Your task to perform on an android device: Go to network settings Image 0: 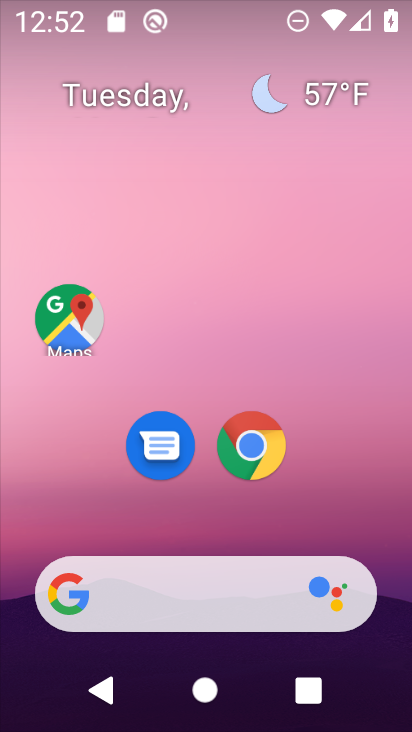
Step 0: drag from (390, 517) to (369, 105)
Your task to perform on an android device: Go to network settings Image 1: 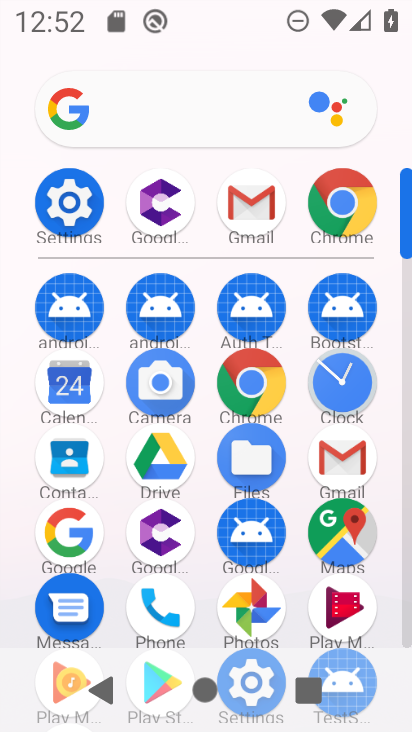
Step 1: drag from (376, 623) to (389, 324)
Your task to perform on an android device: Go to network settings Image 2: 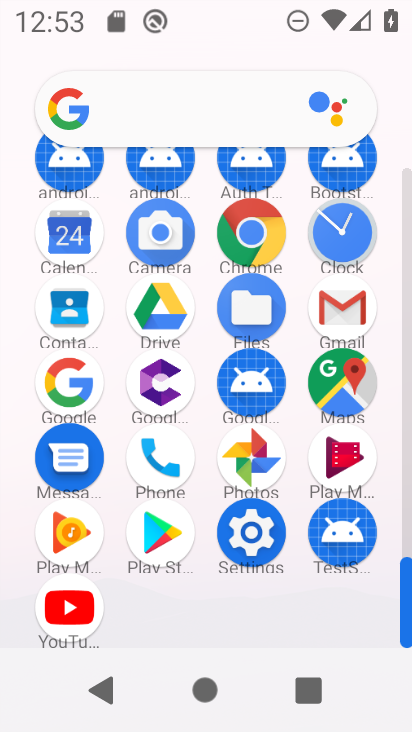
Step 2: drag from (394, 241) to (383, 391)
Your task to perform on an android device: Go to network settings Image 3: 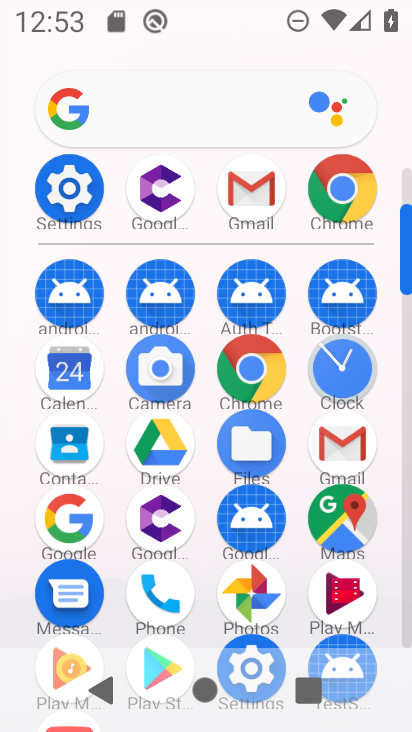
Step 3: click (81, 205)
Your task to perform on an android device: Go to network settings Image 4: 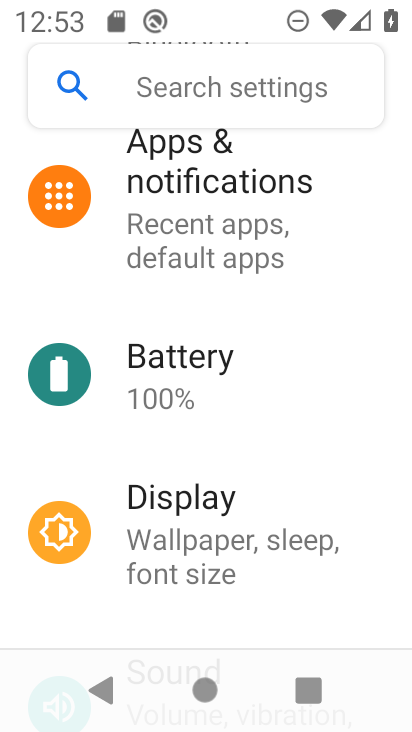
Step 4: drag from (346, 242) to (358, 458)
Your task to perform on an android device: Go to network settings Image 5: 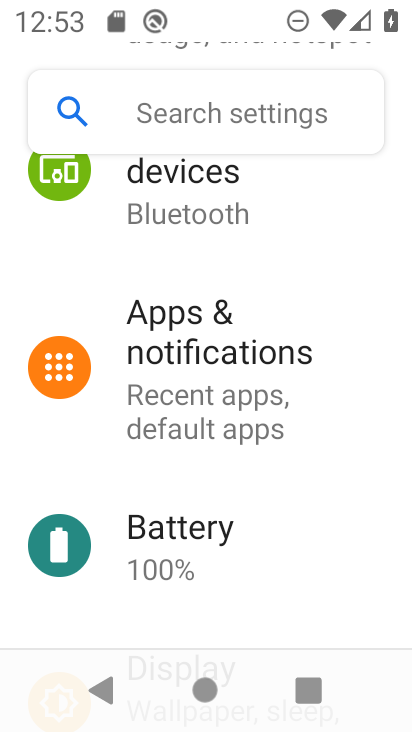
Step 5: drag from (350, 191) to (355, 455)
Your task to perform on an android device: Go to network settings Image 6: 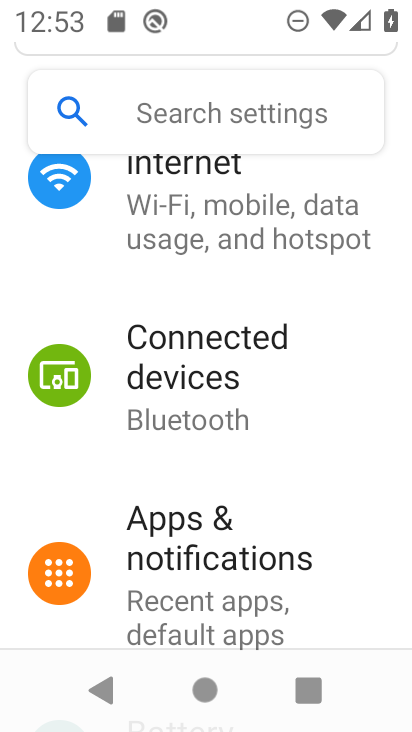
Step 6: drag from (357, 292) to (355, 526)
Your task to perform on an android device: Go to network settings Image 7: 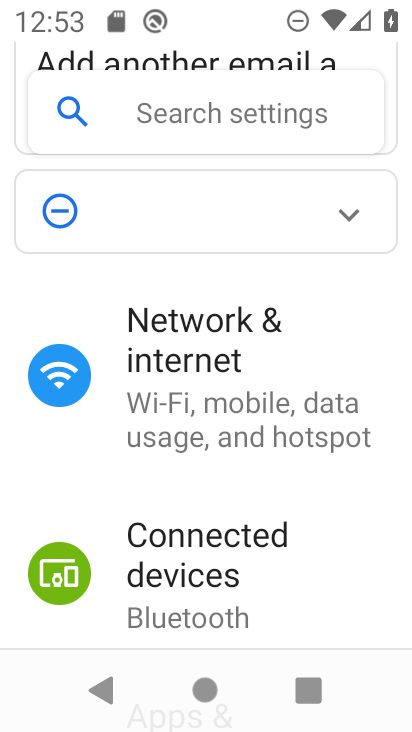
Step 7: click (249, 405)
Your task to perform on an android device: Go to network settings Image 8: 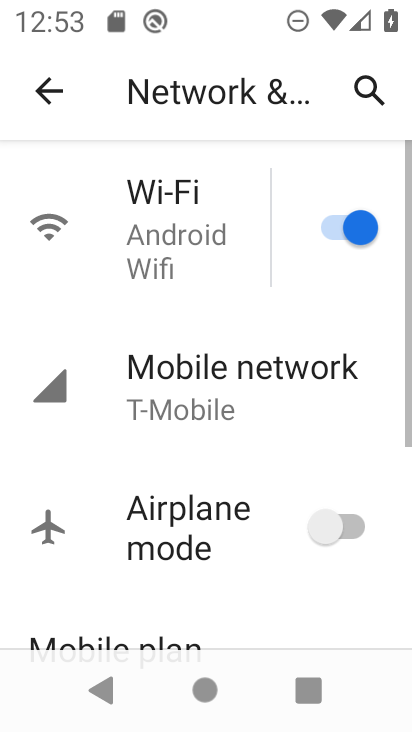
Step 8: task complete